Your task to perform on an android device: What is the recent news? Image 0: 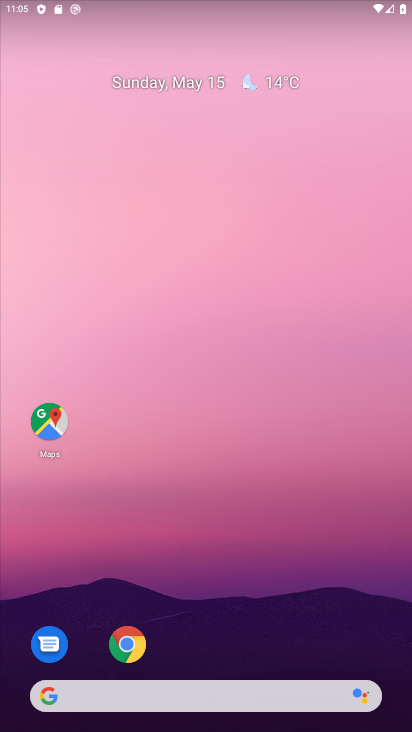
Step 0: click (144, 646)
Your task to perform on an android device: What is the recent news? Image 1: 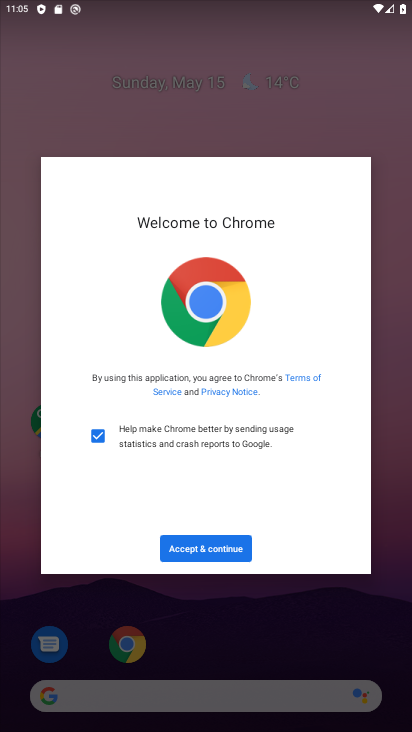
Step 1: click (209, 541)
Your task to perform on an android device: What is the recent news? Image 2: 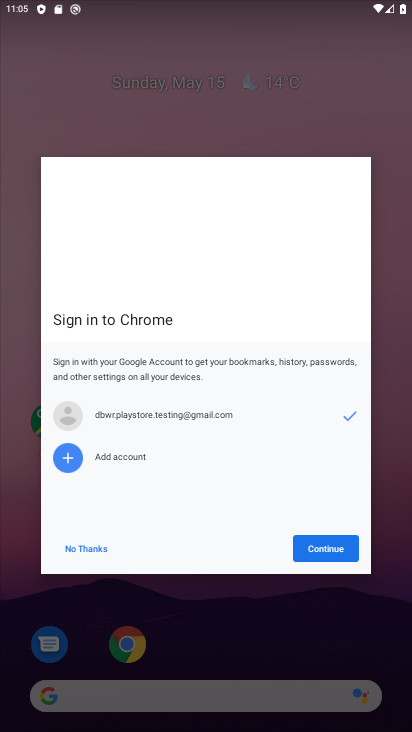
Step 2: click (321, 549)
Your task to perform on an android device: What is the recent news? Image 3: 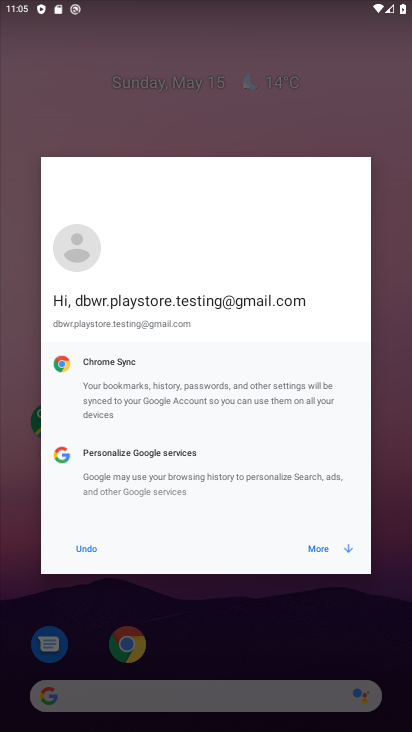
Step 3: click (325, 546)
Your task to perform on an android device: What is the recent news? Image 4: 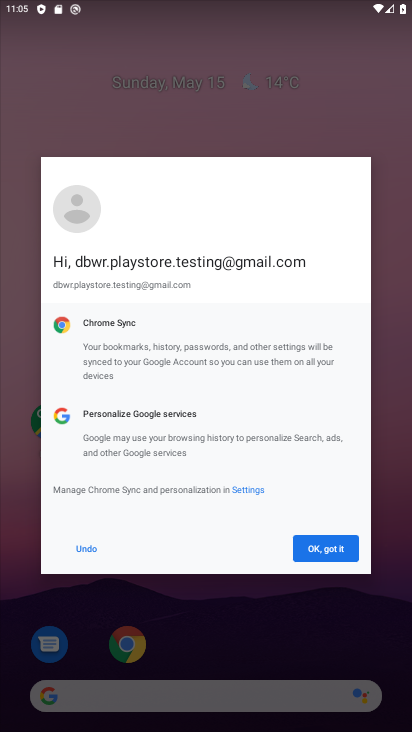
Step 4: click (325, 546)
Your task to perform on an android device: What is the recent news? Image 5: 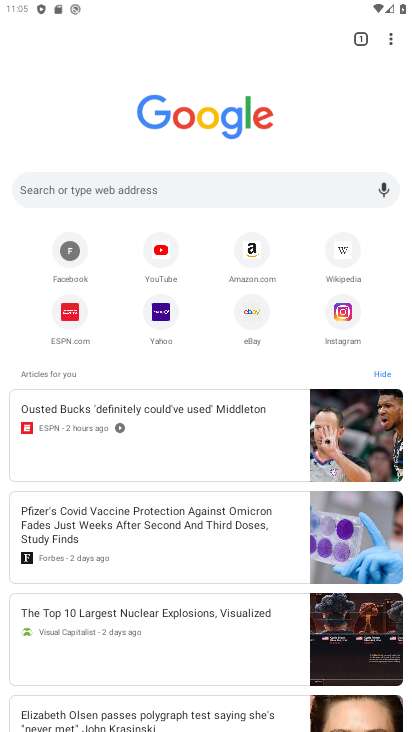
Step 5: click (157, 205)
Your task to perform on an android device: What is the recent news? Image 6: 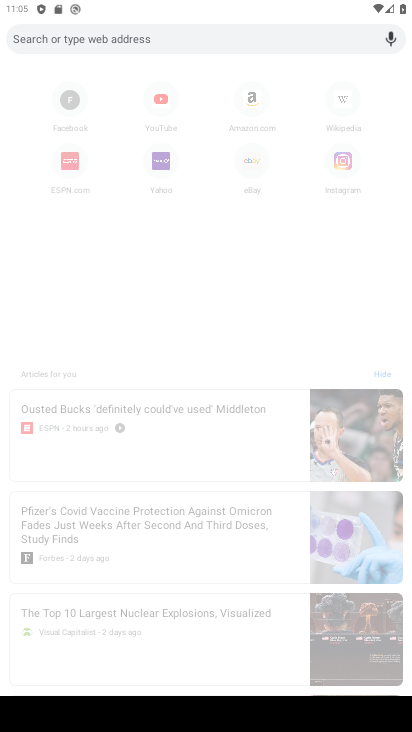
Step 6: type "recent news?"
Your task to perform on an android device: What is the recent news? Image 7: 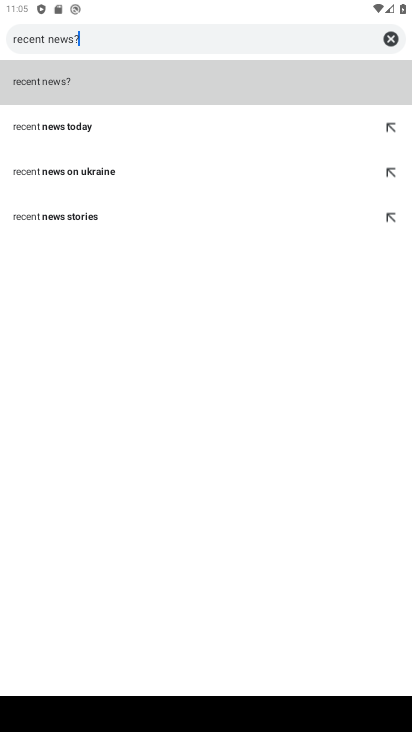
Step 7: click (63, 78)
Your task to perform on an android device: What is the recent news? Image 8: 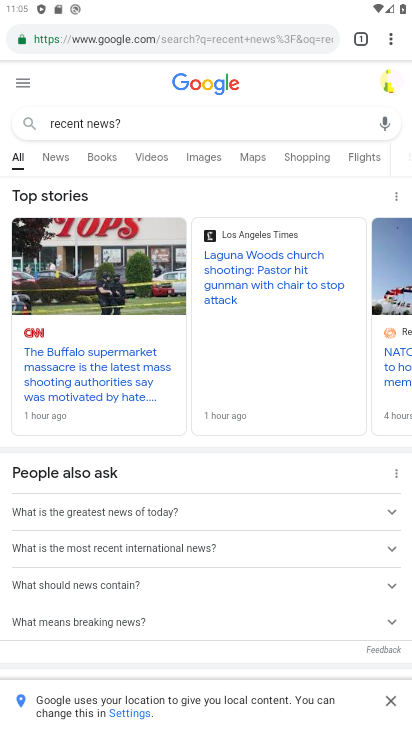
Step 8: click (57, 159)
Your task to perform on an android device: What is the recent news? Image 9: 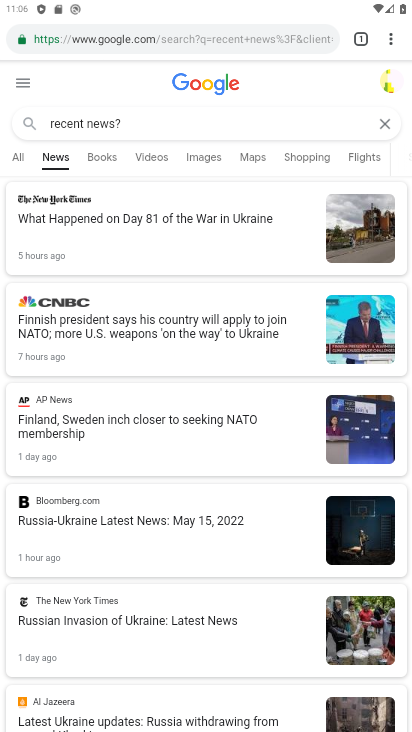
Step 9: task complete